Your task to perform on an android device: allow notifications from all sites in the chrome app Image 0: 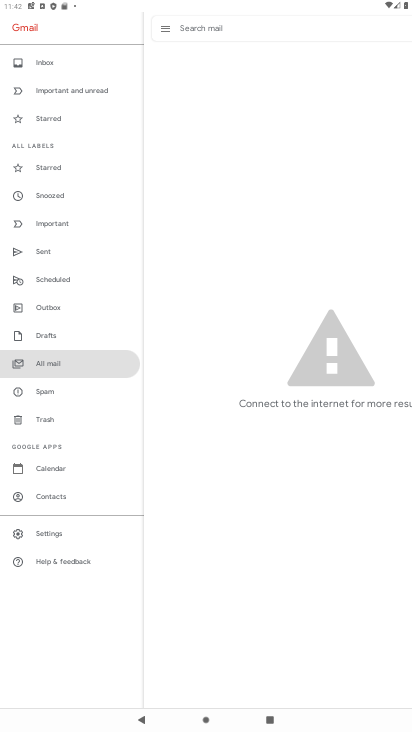
Step 0: press home button
Your task to perform on an android device: allow notifications from all sites in the chrome app Image 1: 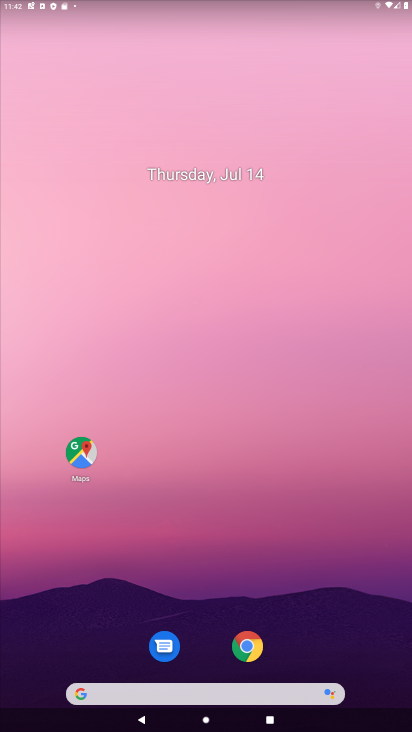
Step 1: click (243, 633)
Your task to perform on an android device: allow notifications from all sites in the chrome app Image 2: 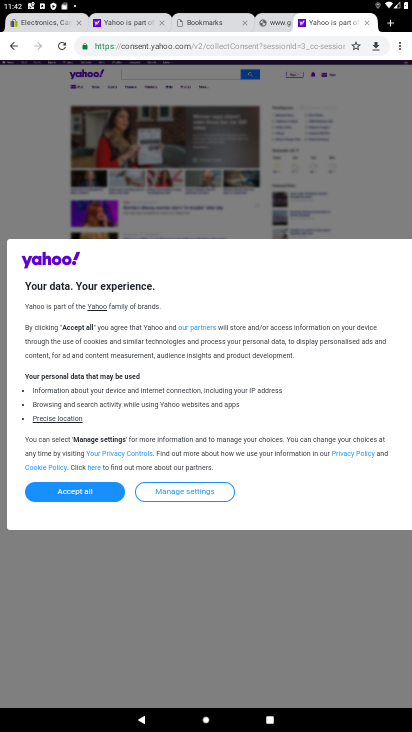
Step 2: click (405, 43)
Your task to perform on an android device: allow notifications from all sites in the chrome app Image 3: 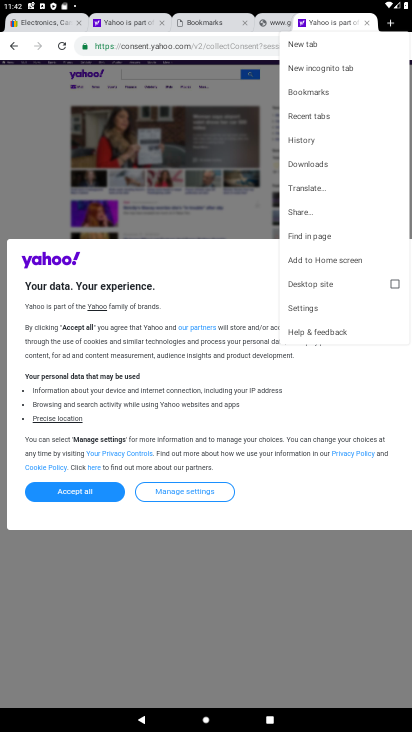
Step 3: click (312, 311)
Your task to perform on an android device: allow notifications from all sites in the chrome app Image 4: 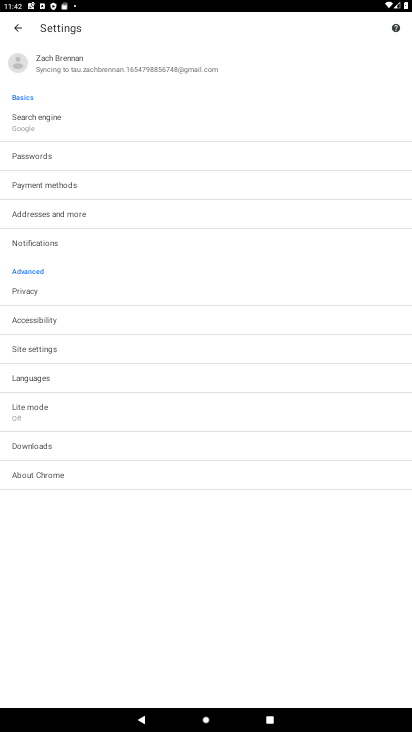
Step 4: click (48, 350)
Your task to perform on an android device: allow notifications from all sites in the chrome app Image 5: 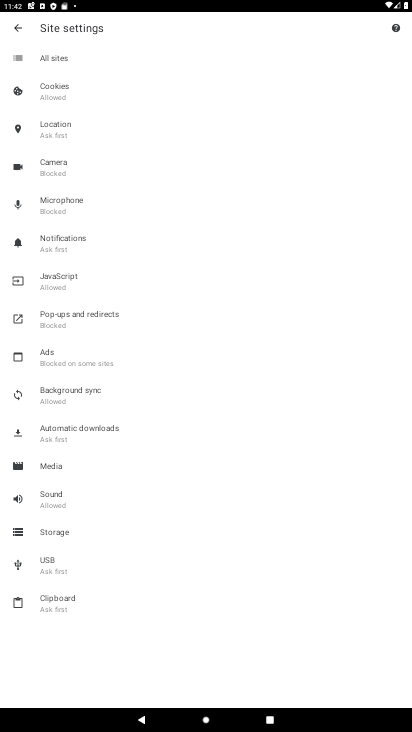
Step 5: click (83, 63)
Your task to perform on an android device: allow notifications from all sites in the chrome app Image 6: 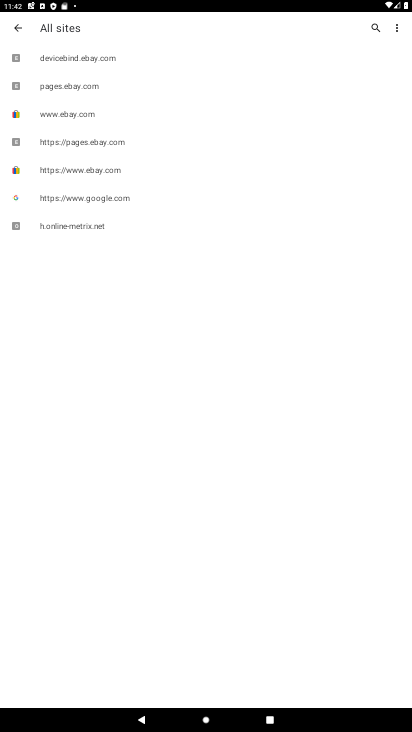
Step 6: click (135, 198)
Your task to perform on an android device: allow notifications from all sites in the chrome app Image 7: 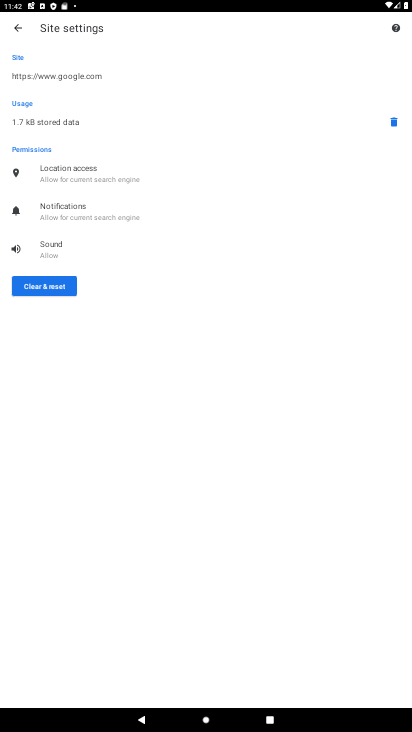
Step 7: click (71, 206)
Your task to perform on an android device: allow notifications from all sites in the chrome app Image 8: 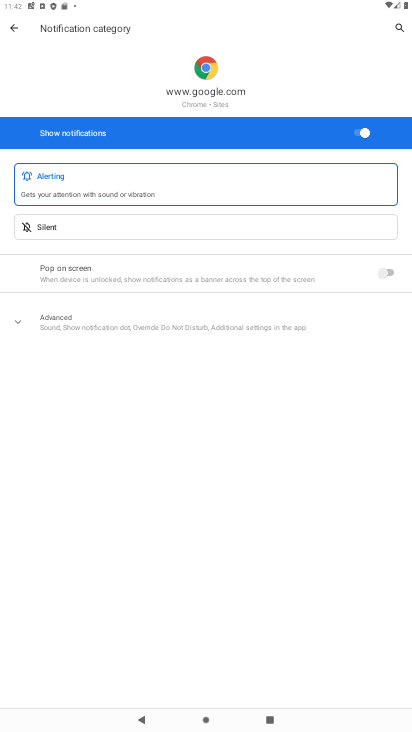
Step 8: task complete